Your task to perform on an android device: Go to Google maps Image 0: 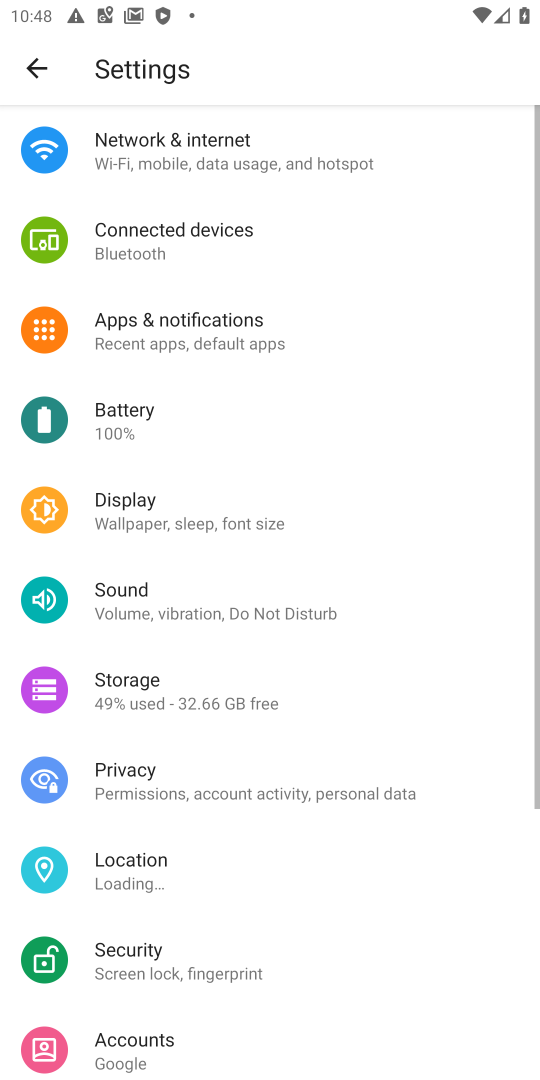
Step 0: press home button
Your task to perform on an android device: Go to Google maps Image 1: 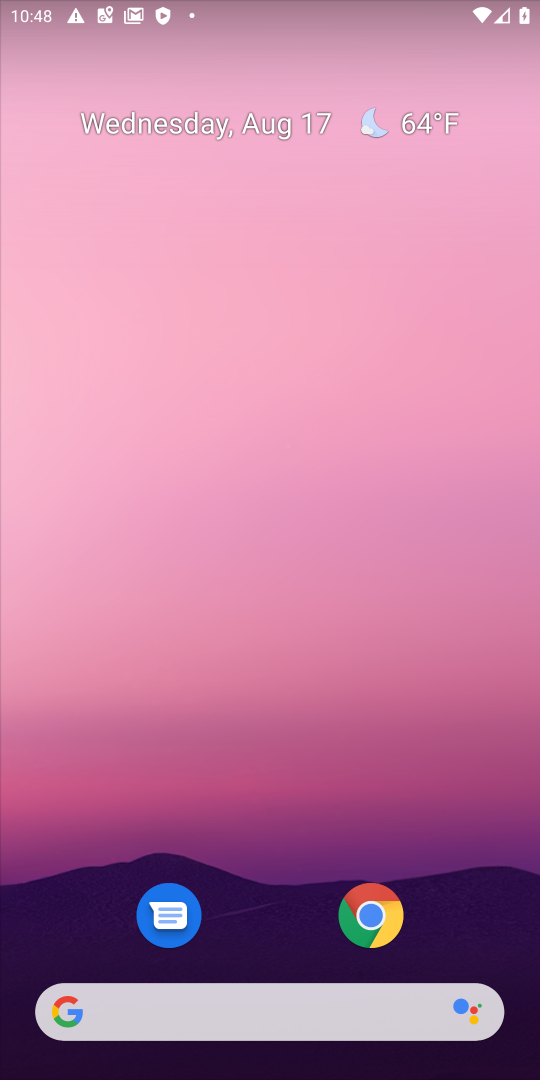
Step 1: drag from (282, 904) to (236, 196)
Your task to perform on an android device: Go to Google maps Image 2: 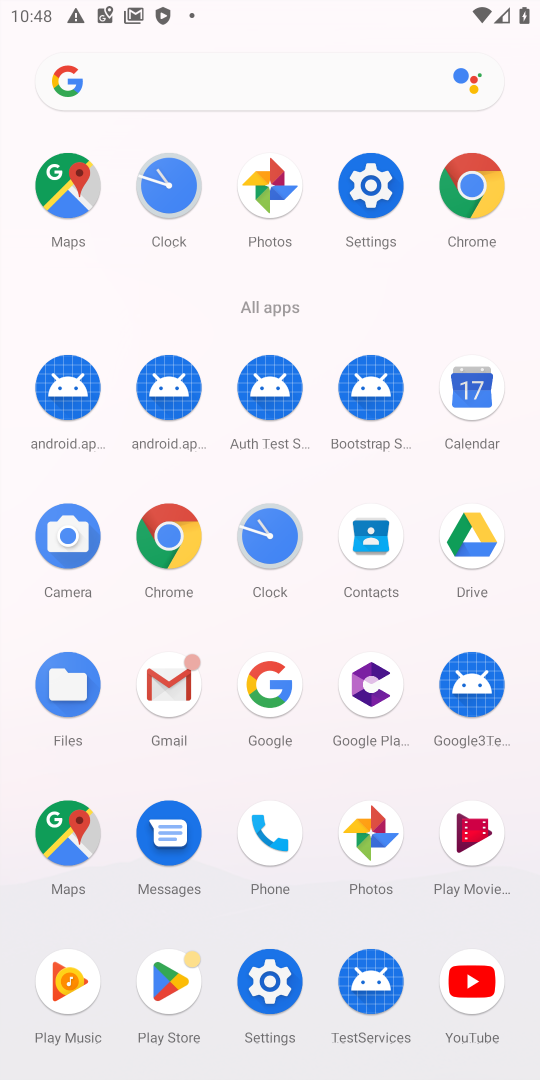
Step 2: click (63, 183)
Your task to perform on an android device: Go to Google maps Image 3: 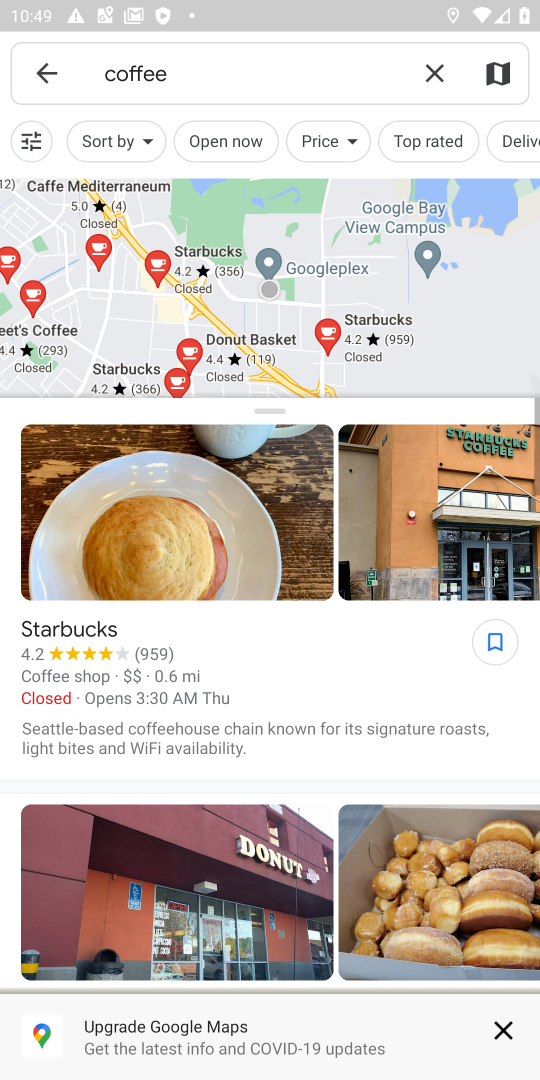
Step 3: click (45, 63)
Your task to perform on an android device: Go to Google maps Image 4: 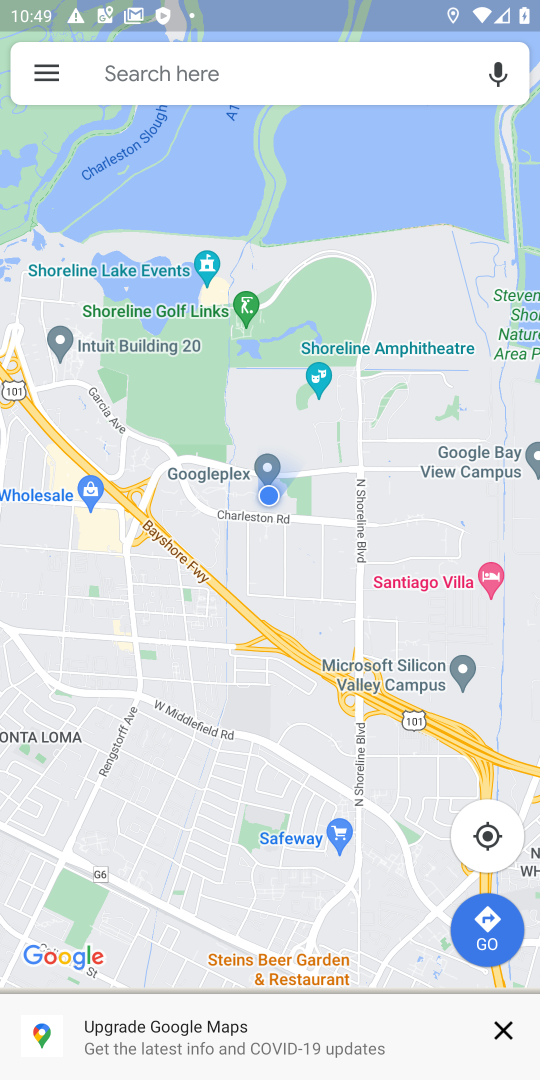
Step 4: task complete